Your task to perform on an android device: turn on showing notifications on the lock screen Image 0: 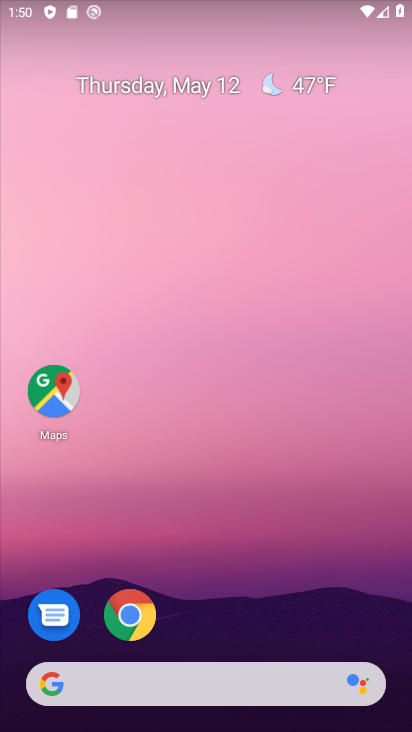
Step 0: drag from (245, 544) to (318, 66)
Your task to perform on an android device: turn on showing notifications on the lock screen Image 1: 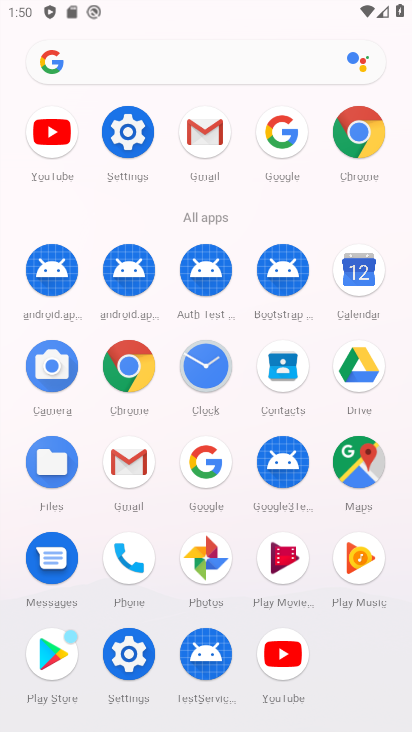
Step 1: click (131, 138)
Your task to perform on an android device: turn on showing notifications on the lock screen Image 2: 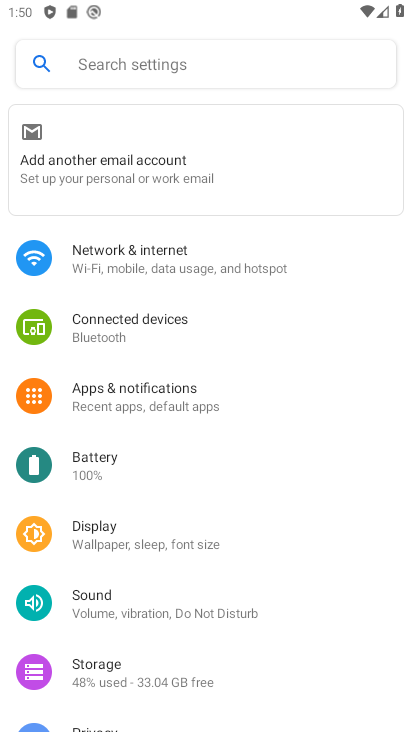
Step 2: click (148, 398)
Your task to perform on an android device: turn on showing notifications on the lock screen Image 3: 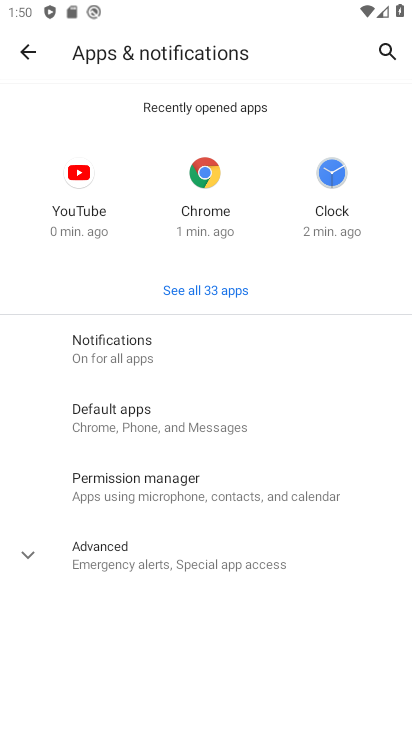
Step 3: click (132, 352)
Your task to perform on an android device: turn on showing notifications on the lock screen Image 4: 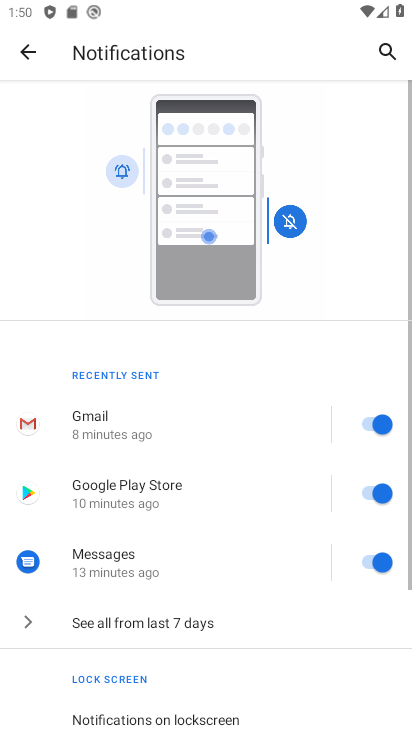
Step 4: drag from (227, 637) to (235, 250)
Your task to perform on an android device: turn on showing notifications on the lock screen Image 5: 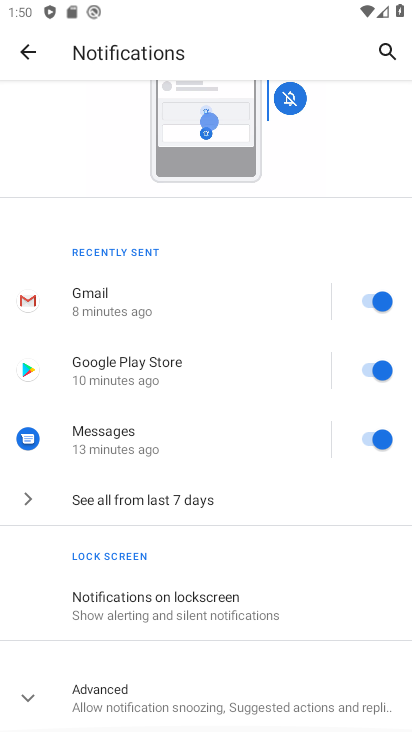
Step 5: click (207, 624)
Your task to perform on an android device: turn on showing notifications on the lock screen Image 6: 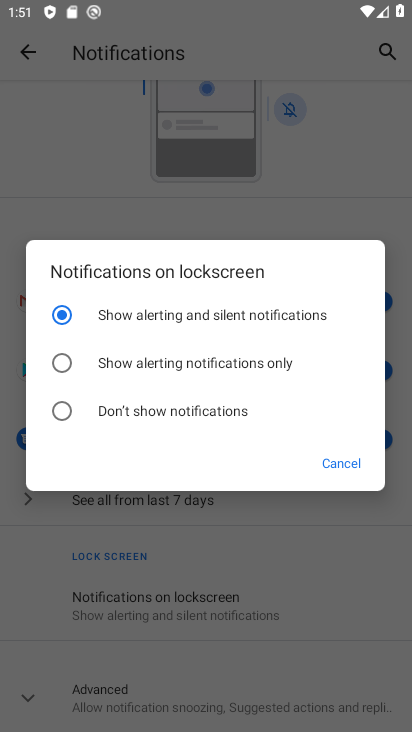
Step 6: task complete